Your task to perform on an android device: Go to Yahoo.com Image 0: 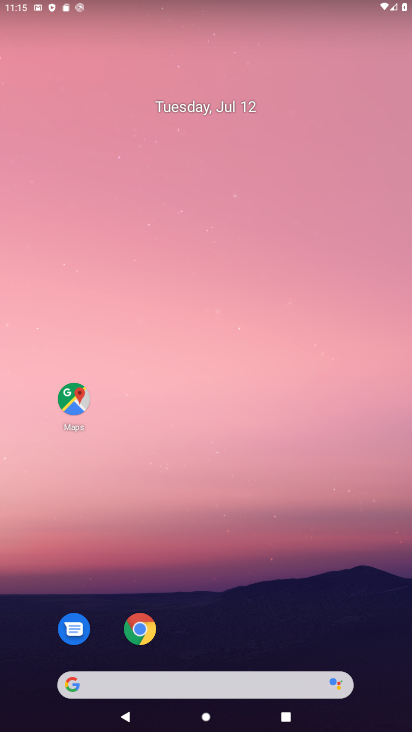
Step 0: click (146, 633)
Your task to perform on an android device: Go to Yahoo.com Image 1: 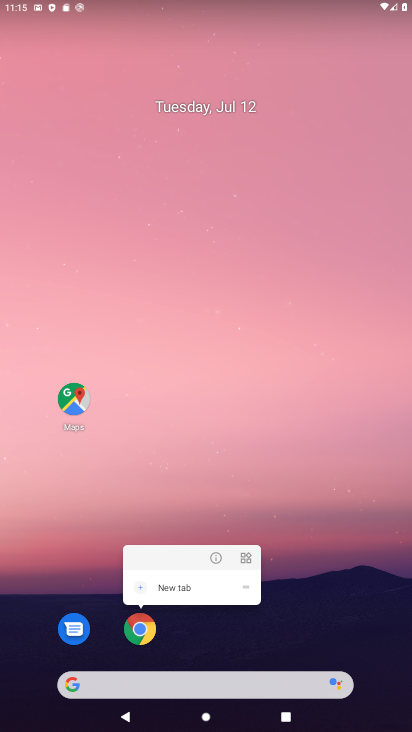
Step 1: click (146, 633)
Your task to perform on an android device: Go to Yahoo.com Image 2: 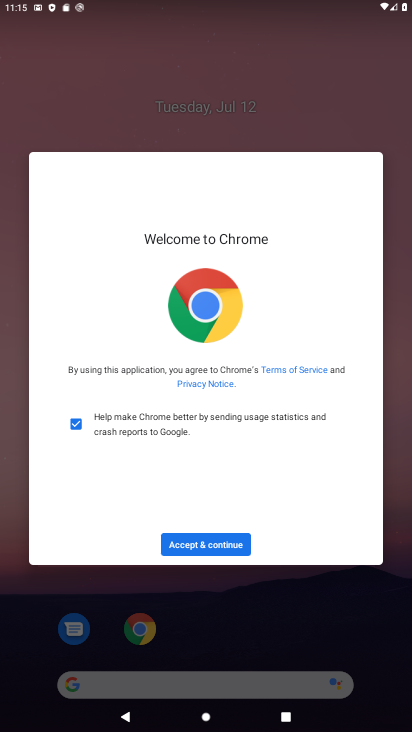
Step 2: click (211, 545)
Your task to perform on an android device: Go to Yahoo.com Image 3: 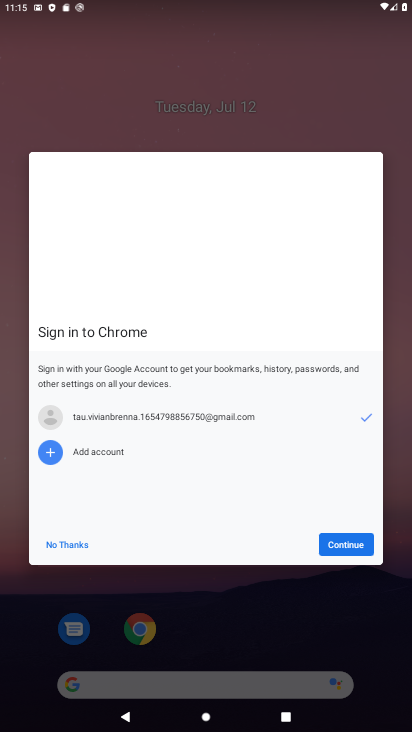
Step 3: click (334, 547)
Your task to perform on an android device: Go to Yahoo.com Image 4: 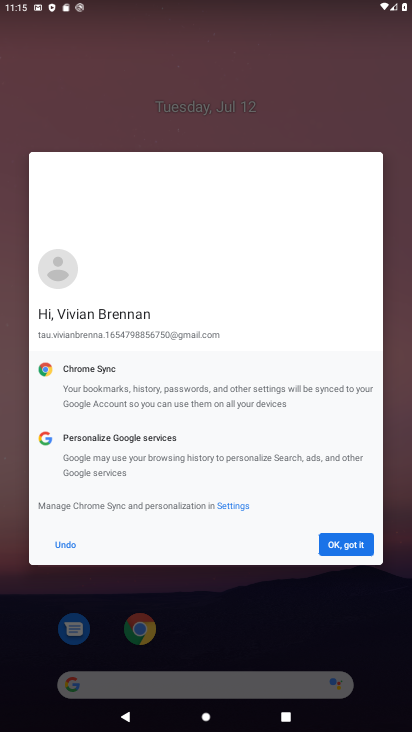
Step 4: click (341, 546)
Your task to perform on an android device: Go to Yahoo.com Image 5: 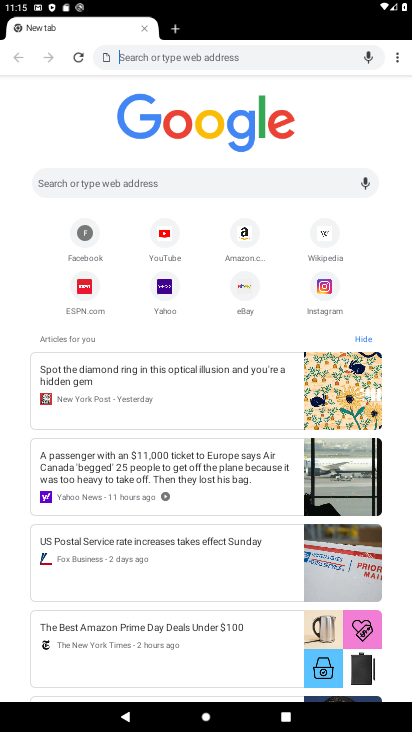
Step 5: click (154, 291)
Your task to perform on an android device: Go to Yahoo.com Image 6: 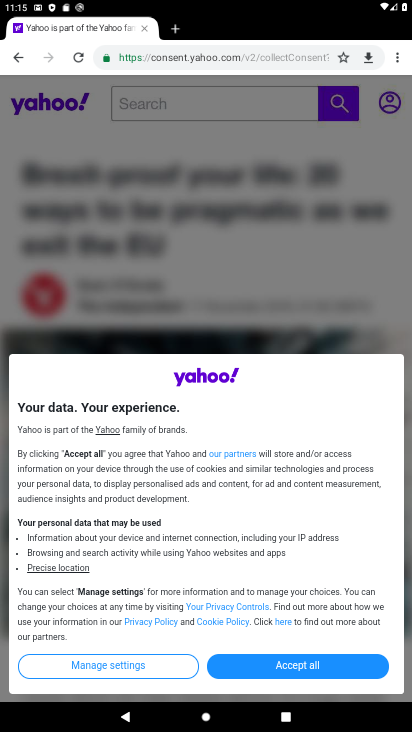
Step 6: click (336, 662)
Your task to perform on an android device: Go to Yahoo.com Image 7: 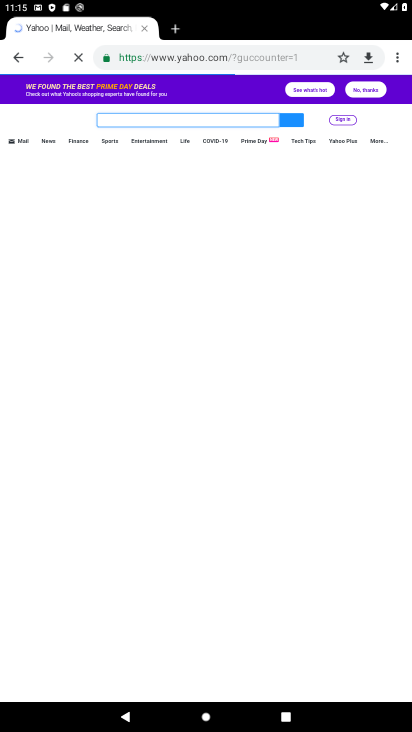
Step 7: task complete